Your task to perform on an android device: turn off airplane mode Image 0: 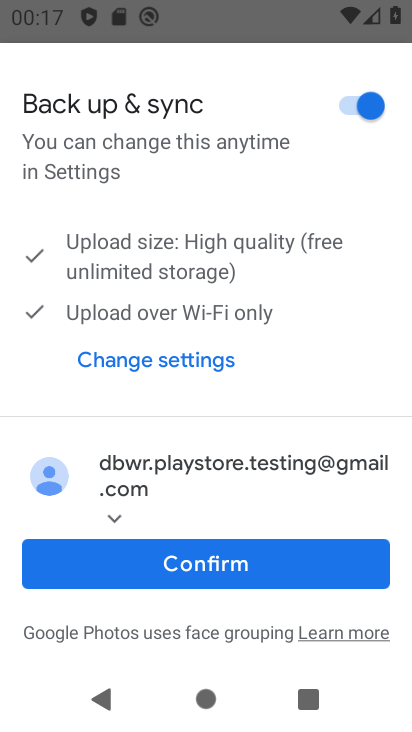
Step 0: click (217, 570)
Your task to perform on an android device: turn off airplane mode Image 1: 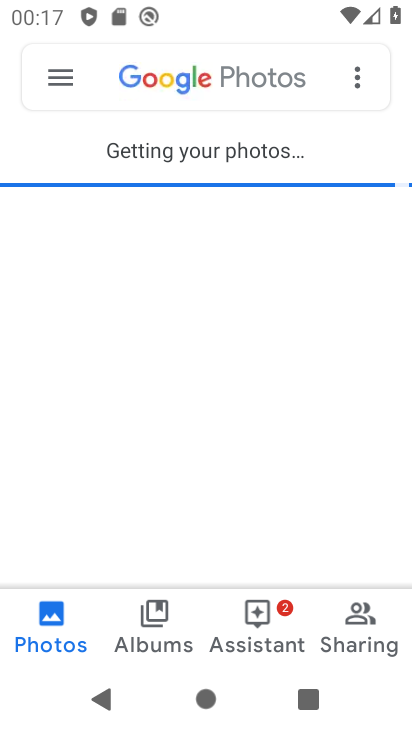
Step 1: task complete